Your task to perform on an android device: Turn off the flashlight Image 0: 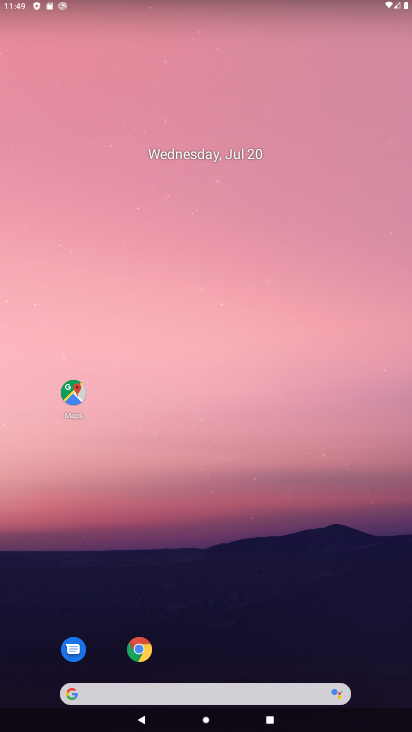
Step 0: drag from (357, 633) to (317, 246)
Your task to perform on an android device: Turn off the flashlight Image 1: 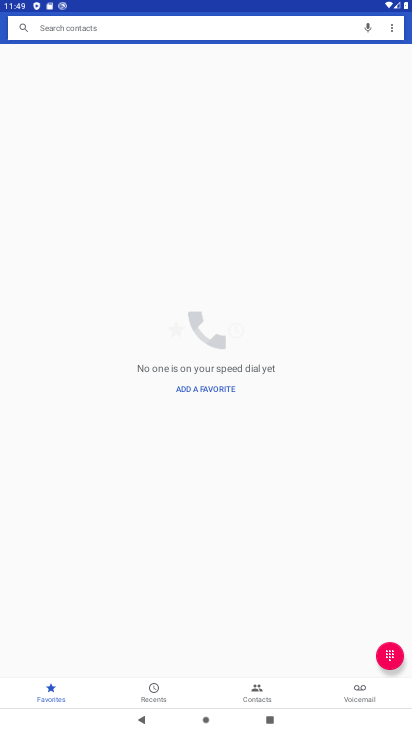
Step 1: task complete